Your task to perform on an android device: Open Yahoo.com Image 0: 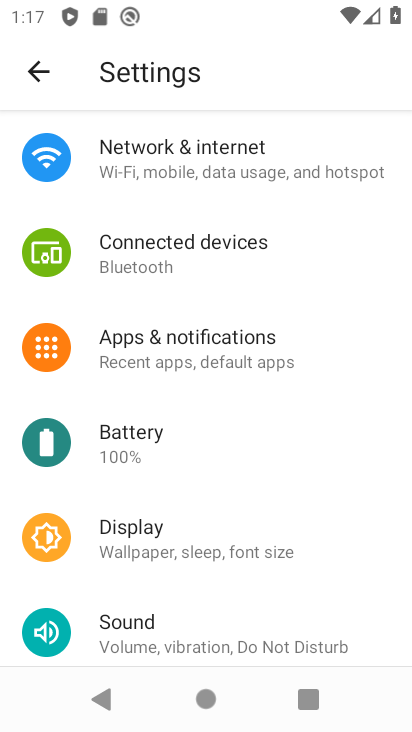
Step 0: press home button
Your task to perform on an android device: Open Yahoo.com Image 1: 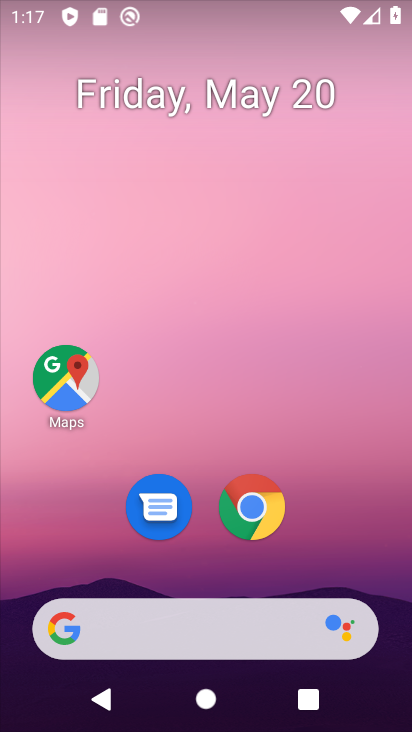
Step 1: click (250, 511)
Your task to perform on an android device: Open Yahoo.com Image 2: 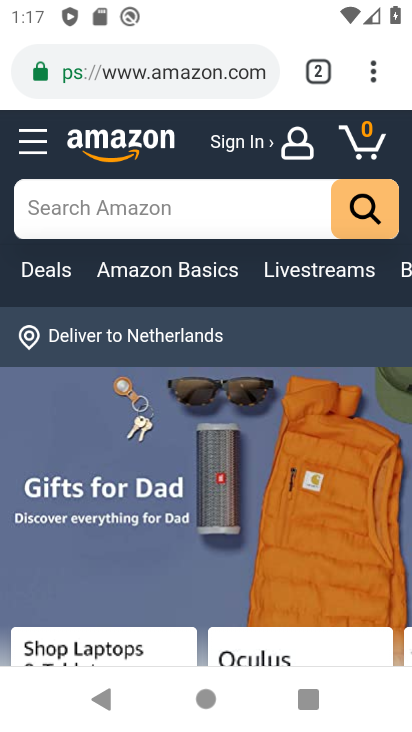
Step 2: click (375, 83)
Your task to perform on an android device: Open Yahoo.com Image 3: 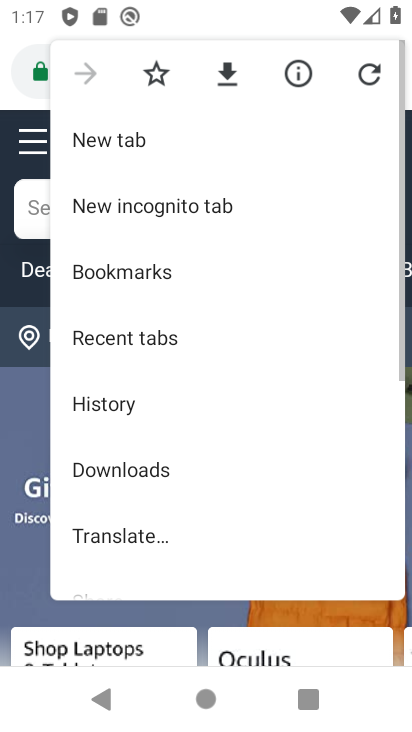
Step 3: click (110, 138)
Your task to perform on an android device: Open Yahoo.com Image 4: 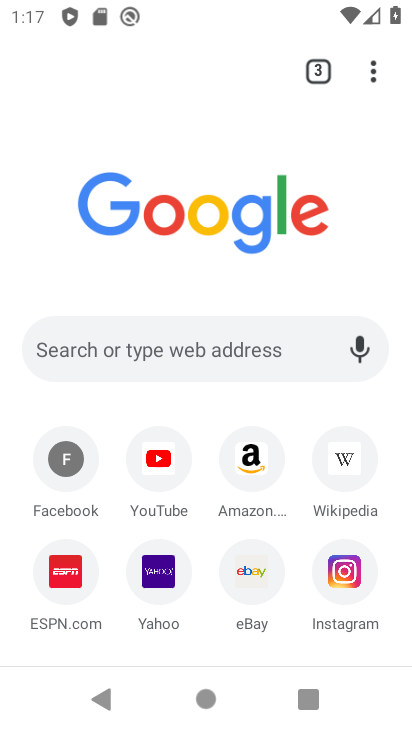
Step 4: click (152, 563)
Your task to perform on an android device: Open Yahoo.com Image 5: 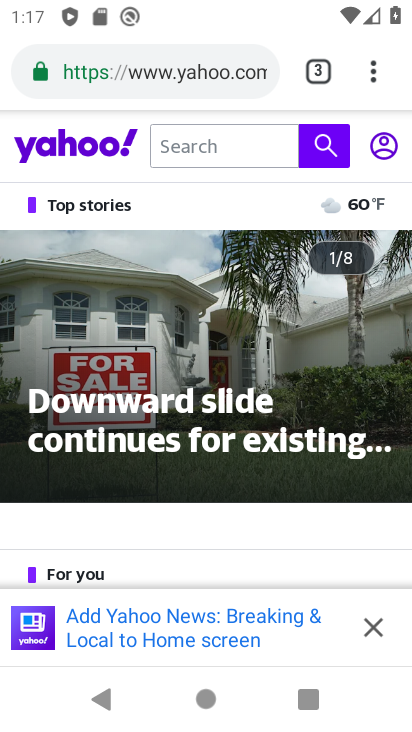
Step 5: task complete